Your task to perform on an android device: see creations saved in the google photos Image 0: 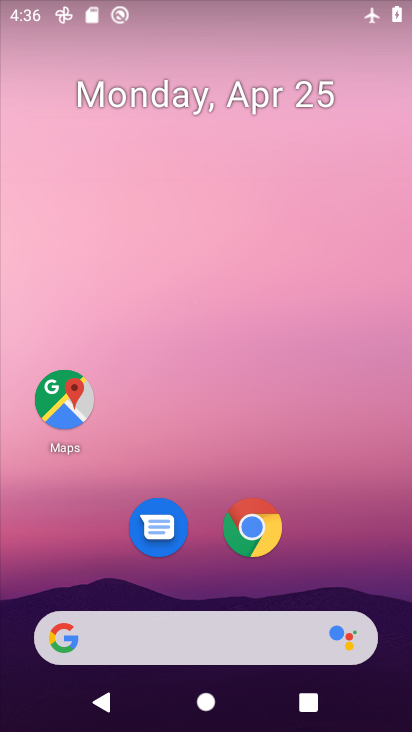
Step 0: drag from (381, 507) to (373, 33)
Your task to perform on an android device: see creations saved in the google photos Image 1: 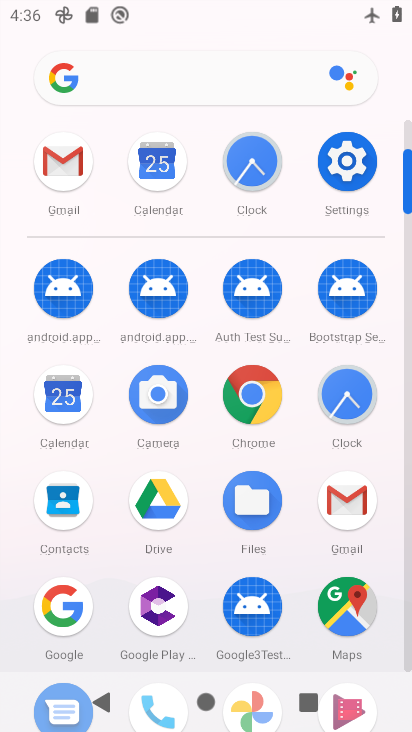
Step 1: click (405, 650)
Your task to perform on an android device: see creations saved in the google photos Image 2: 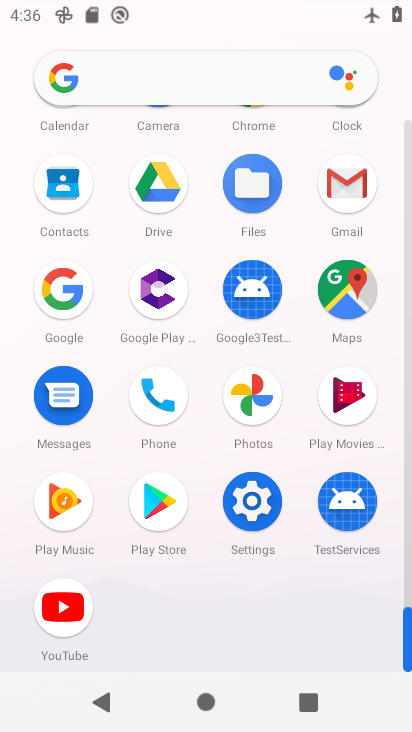
Step 2: click (249, 391)
Your task to perform on an android device: see creations saved in the google photos Image 3: 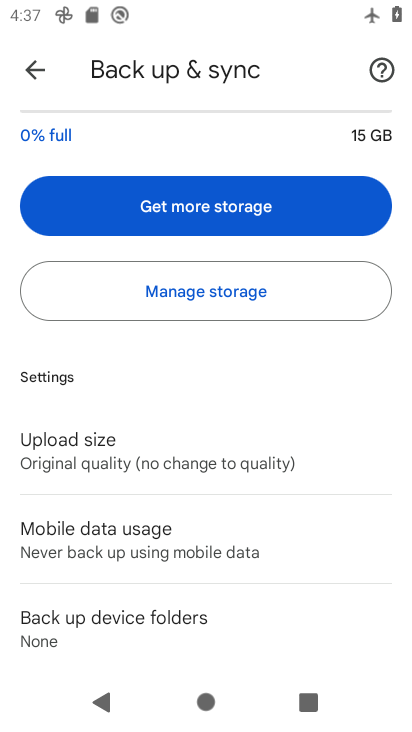
Step 3: task complete